Your task to perform on an android device: turn off data saver in the chrome app Image 0: 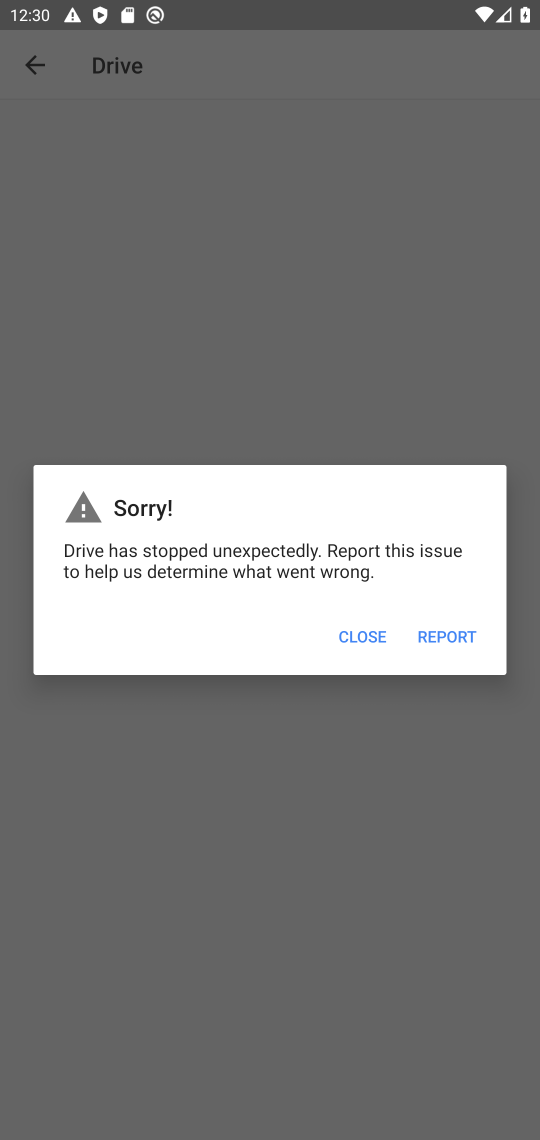
Step 0: press home button
Your task to perform on an android device: turn off data saver in the chrome app Image 1: 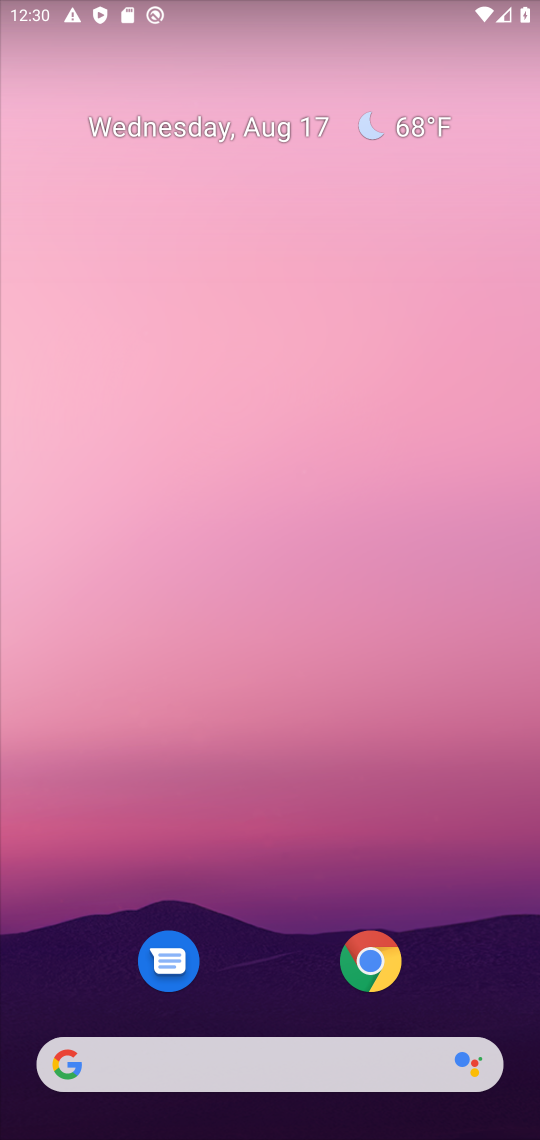
Step 1: drag from (300, 920) to (367, 245)
Your task to perform on an android device: turn off data saver in the chrome app Image 2: 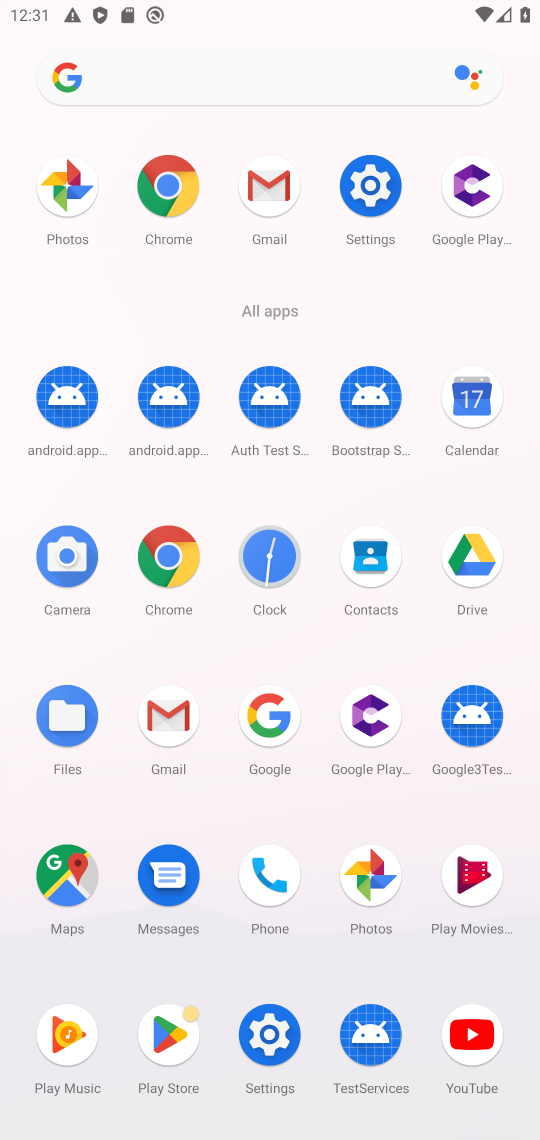
Step 2: click (177, 193)
Your task to perform on an android device: turn off data saver in the chrome app Image 3: 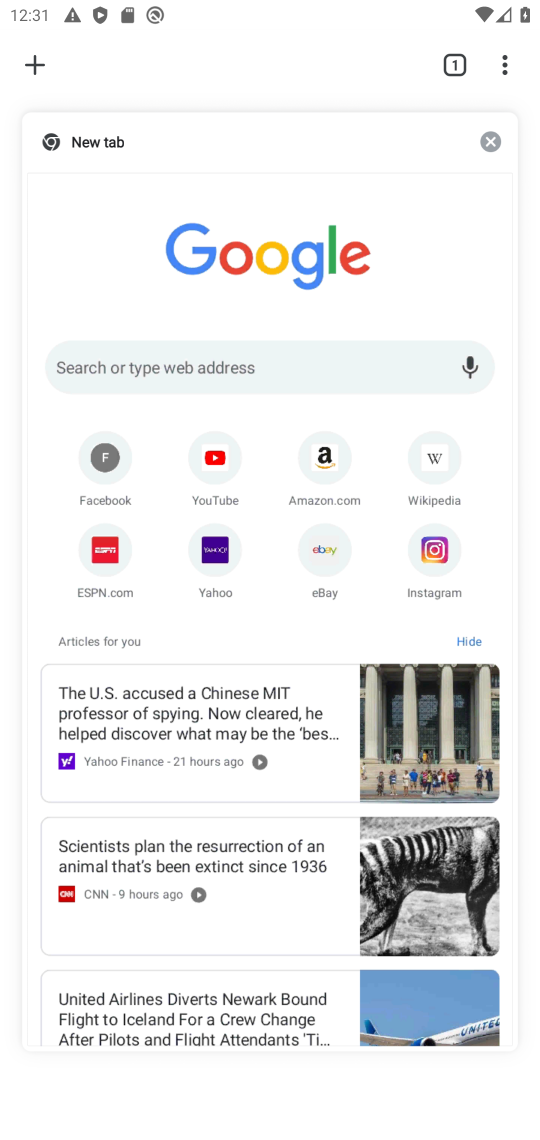
Step 3: click (305, 218)
Your task to perform on an android device: turn off data saver in the chrome app Image 4: 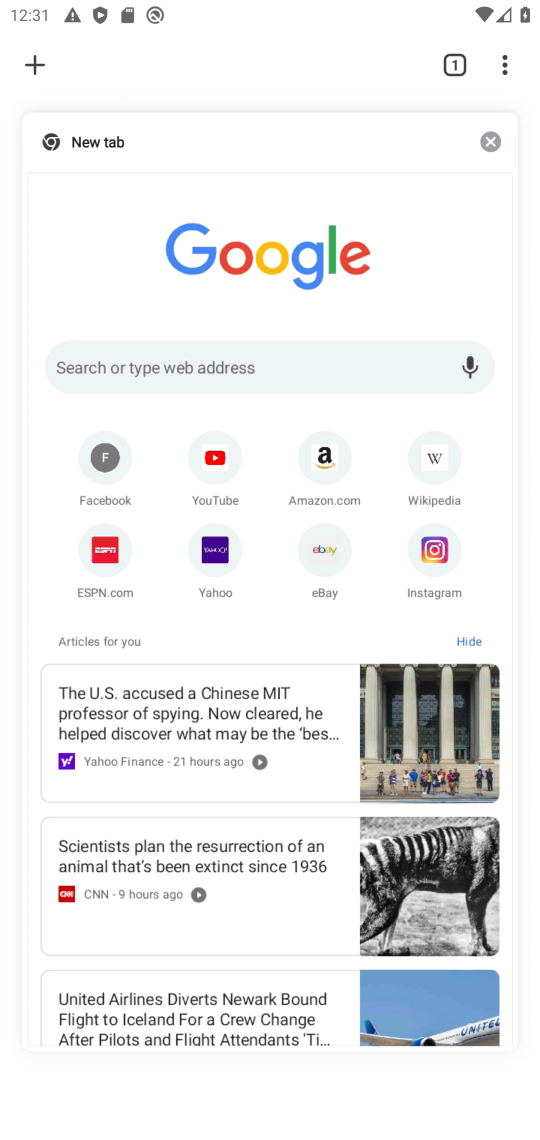
Step 4: click (262, 272)
Your task to perform on an android device: turn off data saver in the chrome app Image 5: 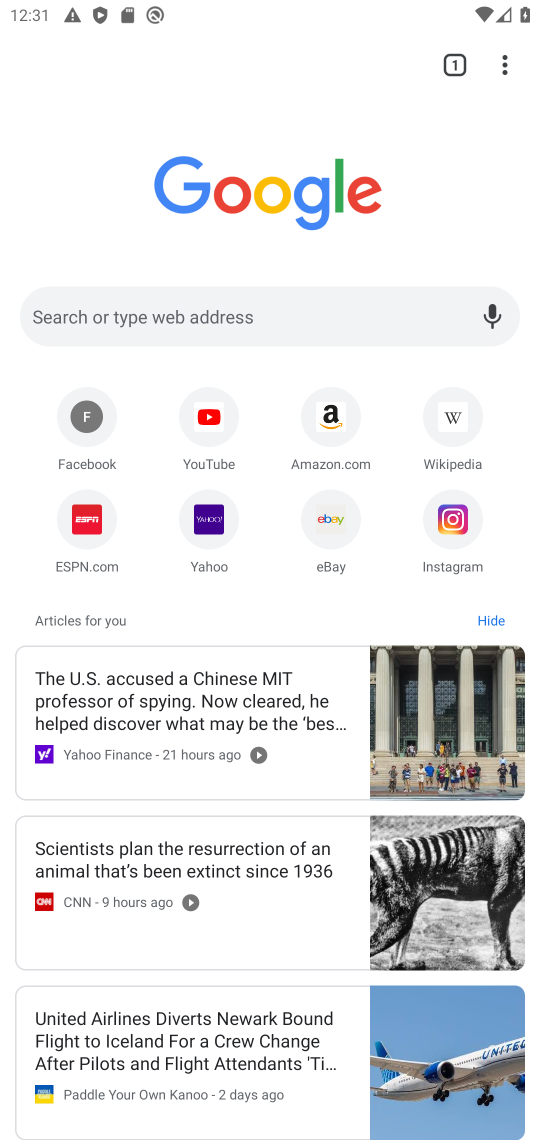
Step 5: click (503, 64)
Your task to perform on an android device: turn off data saver in the chrome app Image 6: 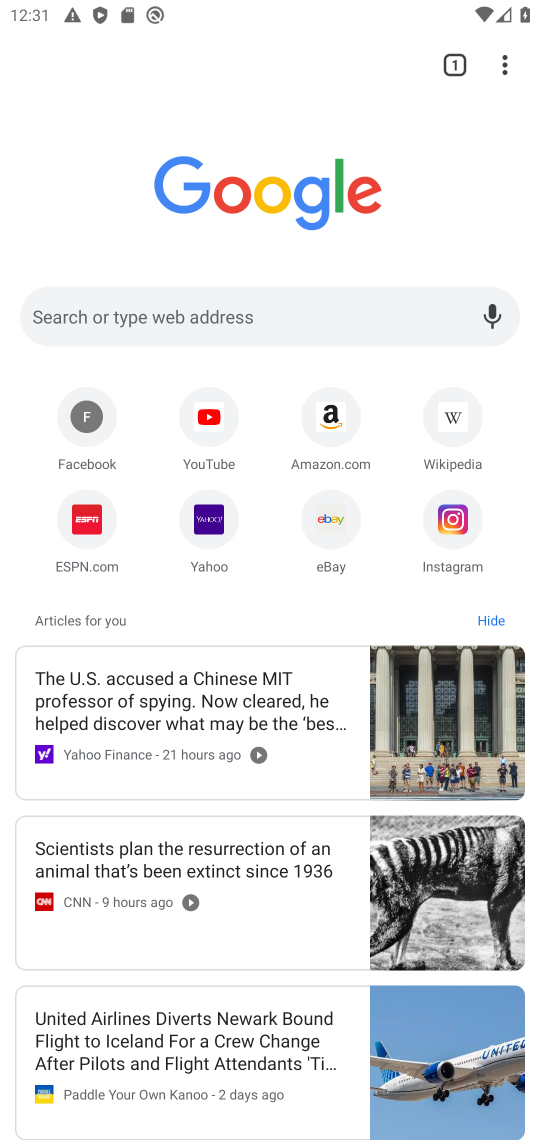
Step 6: click (506, 67)
Your task to perform on an android device: turn off data saver in the chrome app Image 7: 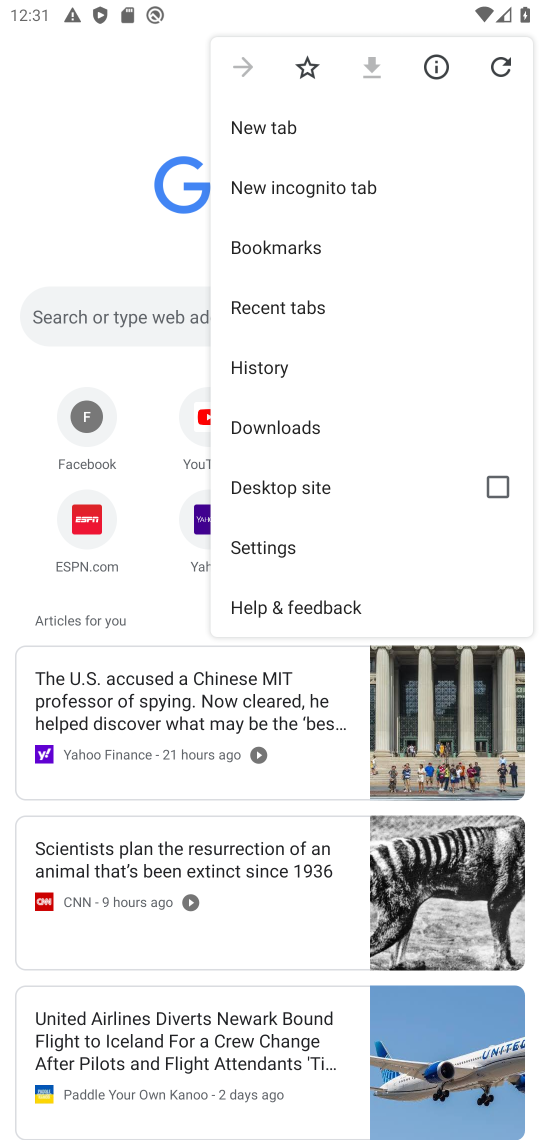
Step 7: click (255, 536)
Your task to perform on an android device: turn off data saver in the chrome app Image 8: 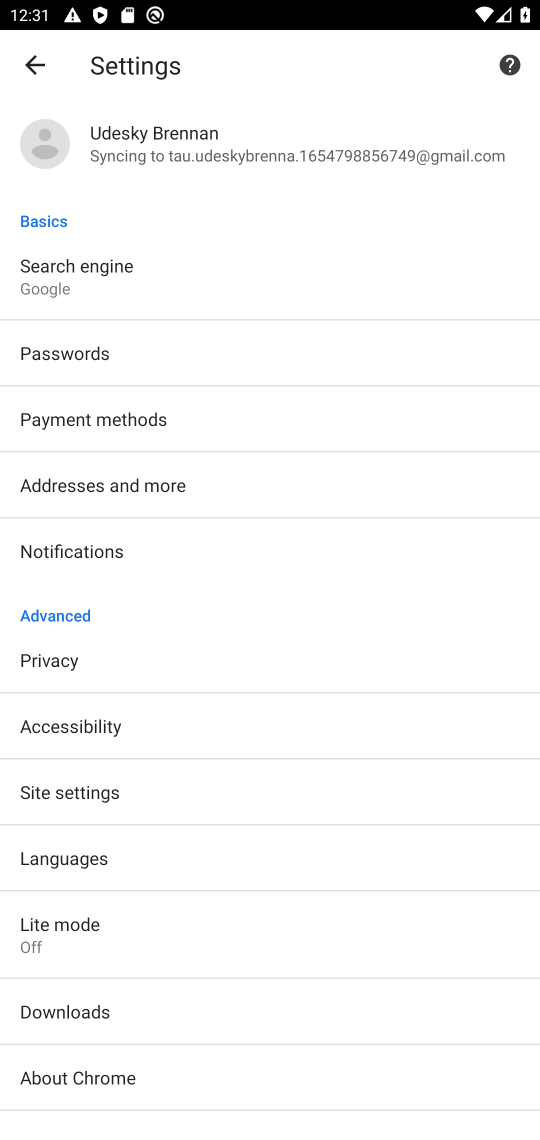
Step 8: click (184, 930)
Your task to perform on an android device: turn off data saver in the chrome app Image 9: 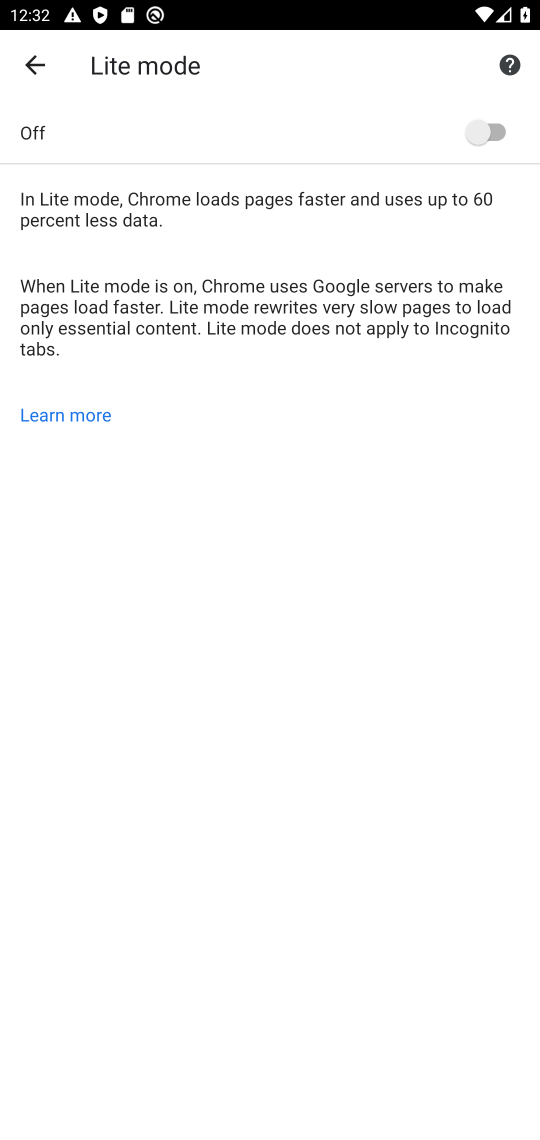
Step 9: task complete